Your task to perform on an android device: Open Reddit.com Image 0: 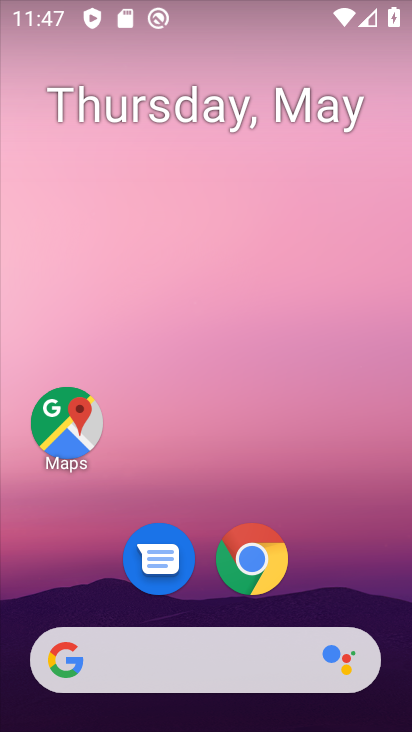
Step 0: drag from (226, 644) to (264, 221)
Your task to perform on an android device: Open Reddit.com Image 1: 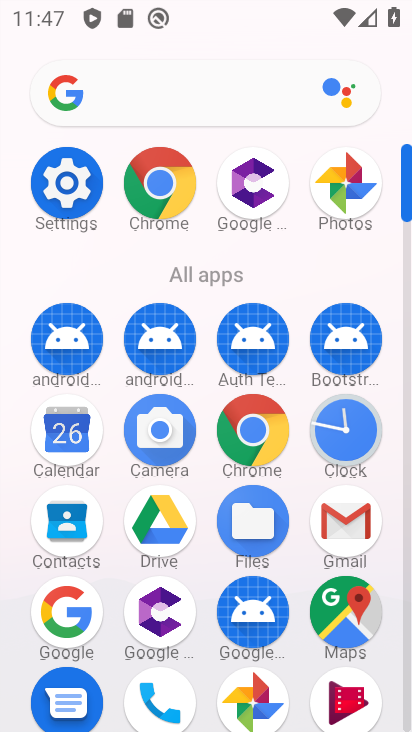
Step 1: click (176, 177)
Your task to perform on an android device: Open Reddit.com Image 2: 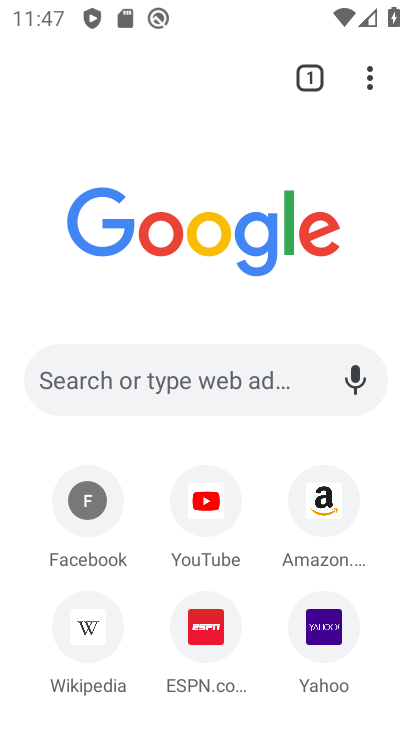
Step 2: click (203, 388)
Your task to perform on an android device: Open Reddit.com Image 3: 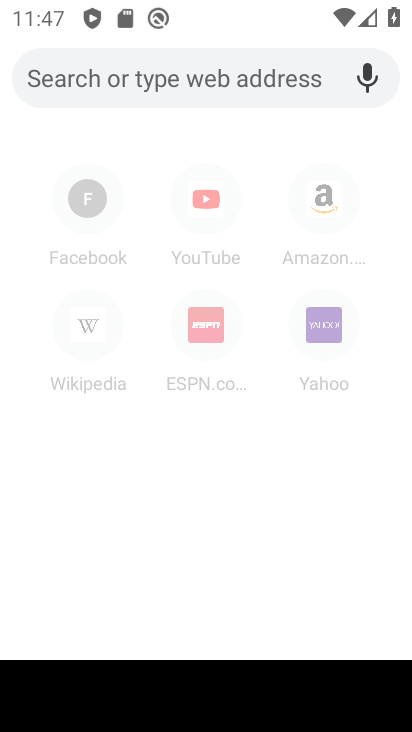
Step 3: type "reddit"
Your task to perform on an android device: Open Reddit.com Image 4: 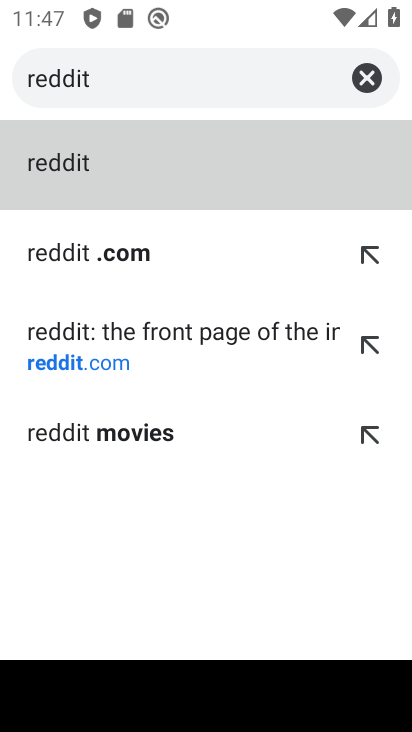
Step 4: click (251, 318)
Your task to perform on an android device: Open Reddit.com Image 5: 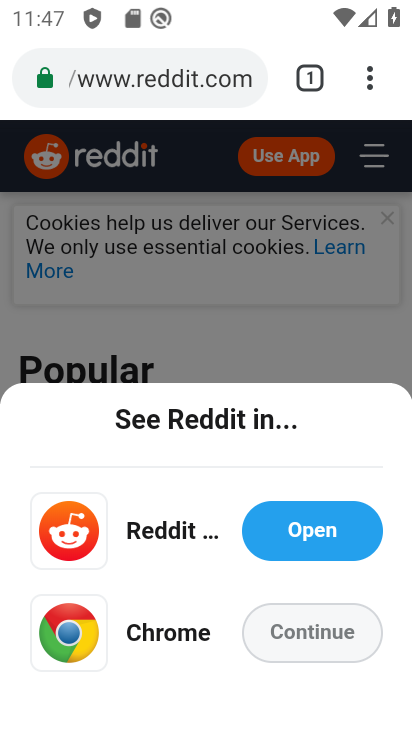
Step 5: click (321, 638)
Your task to perform on an android device: Open Reddit.com Image 6: 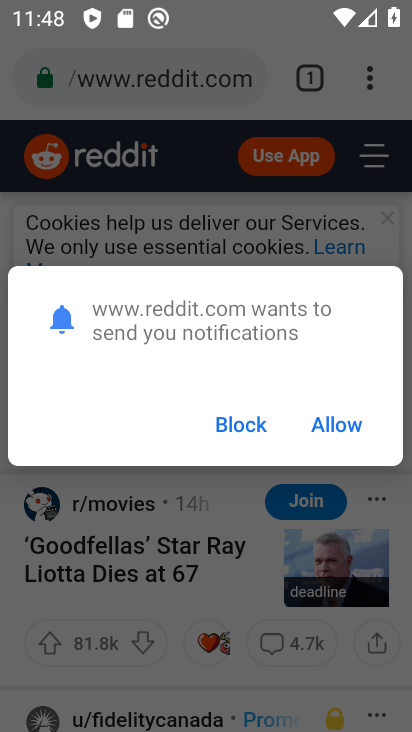
Step 6: task complete